Your task to perform on an android device: open a bookmark in the chrome app Image 0: 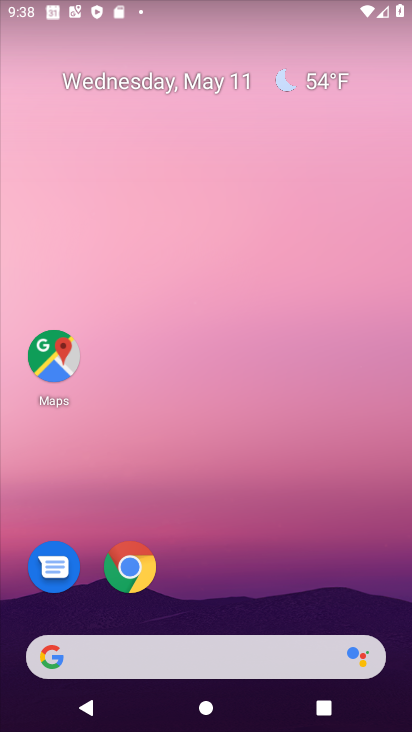
Step 0: click (135, 567)
Your task to perform on an android device: open a bookmark in the chrome app Image 1: 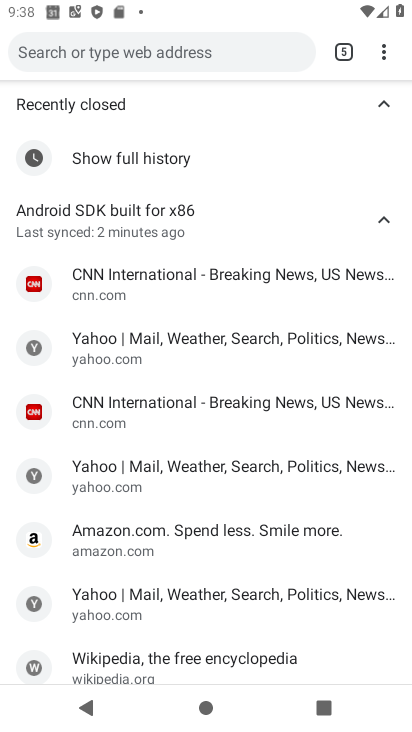
Step 1: click (386, 57)
Your task to perform on an android device: open a bookmark in the chrome app Image 2: 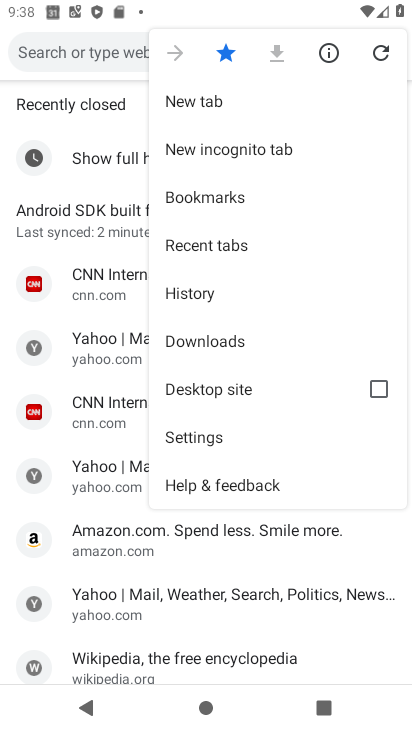
Step 2: click (214, 198)
Your task to perform on an android device: open a bookmark in the chrome app Image 3: 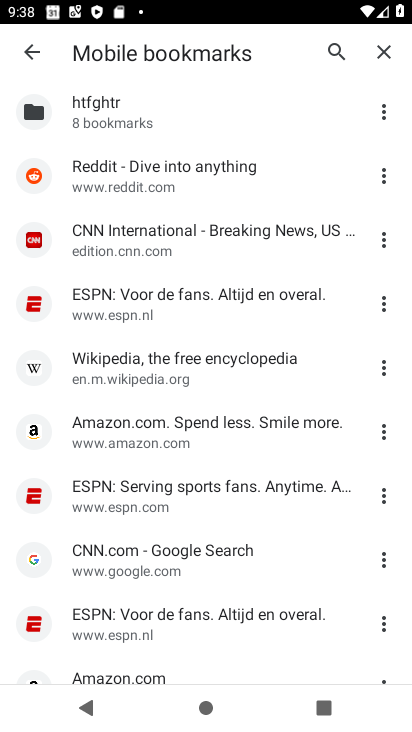
Step 3: click (165, 358)
Your task to perform on an android device: open a bookmark in the chrome app Image 4: 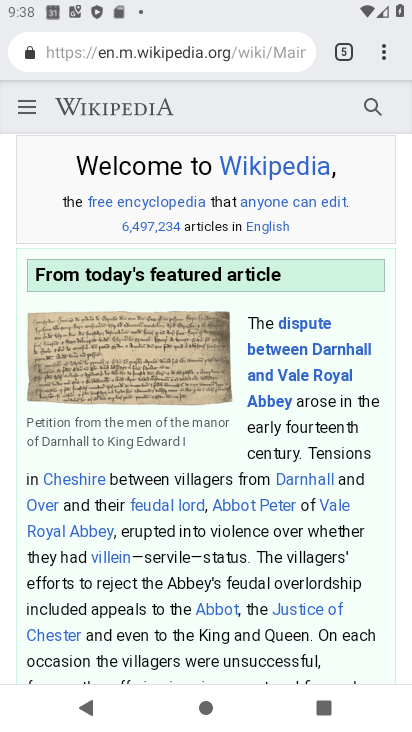
Step 4: task complete